Your task to perform on an android device: snooze an email in the gmail app Image 0: 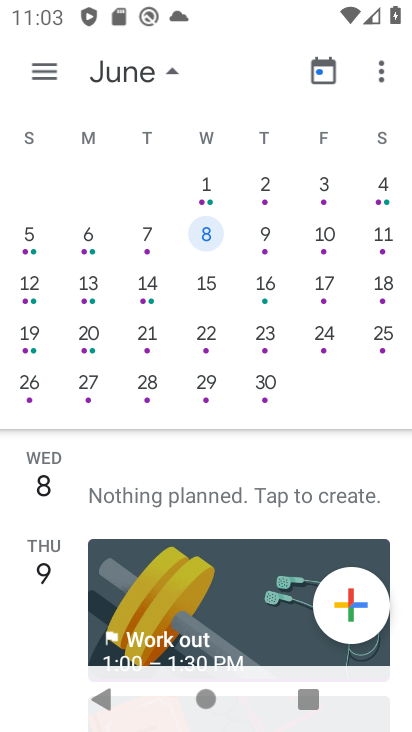
Step 0: press back button
Your task to perform on an android device: snooze an email in the gmail app Image 1: 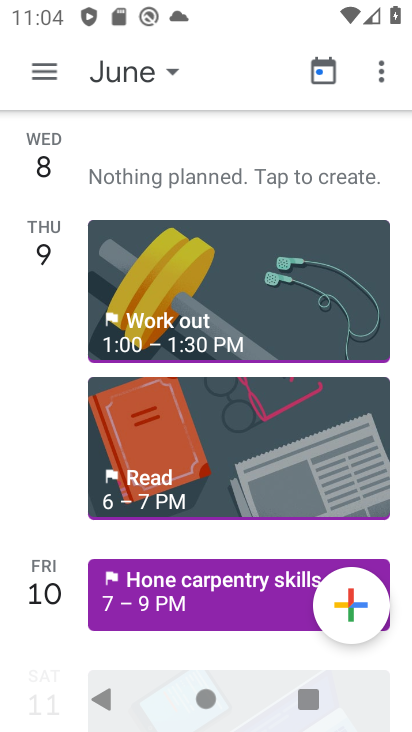
Step 1: press home button
Your task to perform on an android device: snooze an email in the gmail app Image 2: 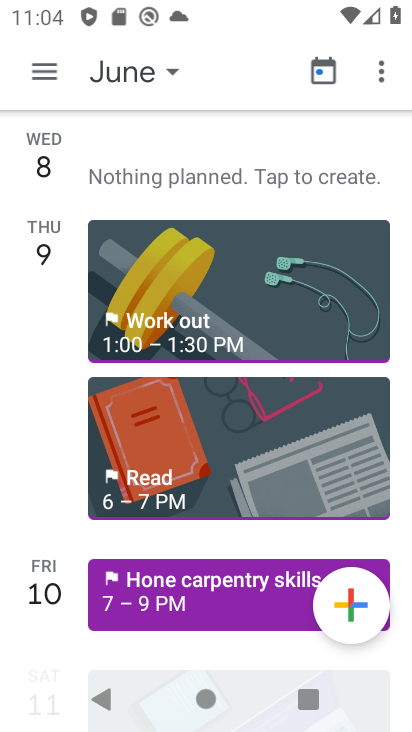
Step 2: press home button
Your task to perform on an android device: snooze an email in the gmail app Image 3: 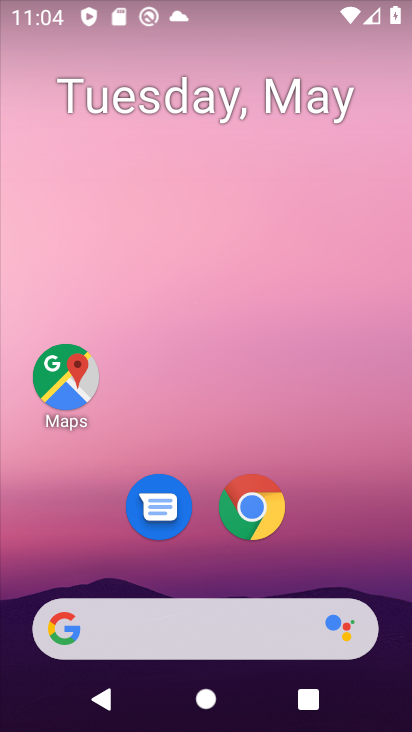
Step 3: click (163, 131)
Your task to perform on an android device: snooze an email in the gmail app Image 4: 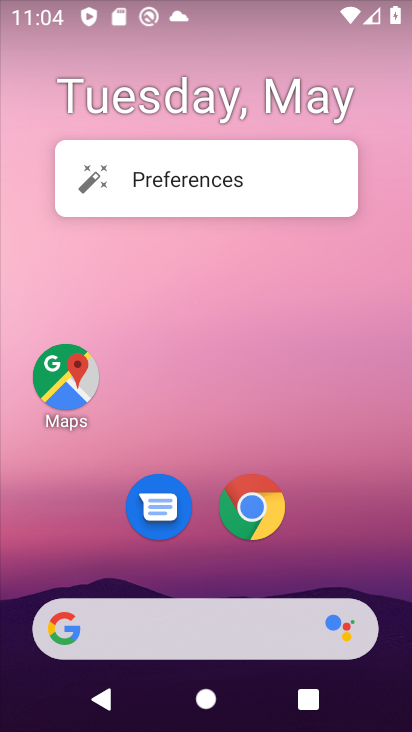
Step 4: drag from (229, 605) to (139, 79)
Your task to perform on an android device: snooze an email in the gmail app Image 5: 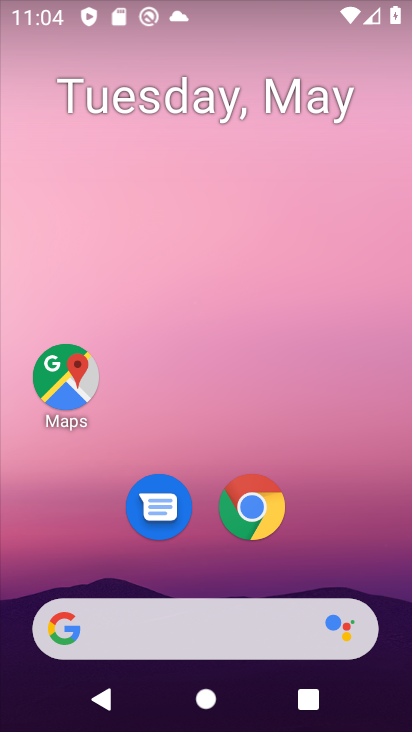
Step 5: drag from (258, 679) to (164, 147)
Your task to perform on an android device: snooze an email in the gmail app Image 6: 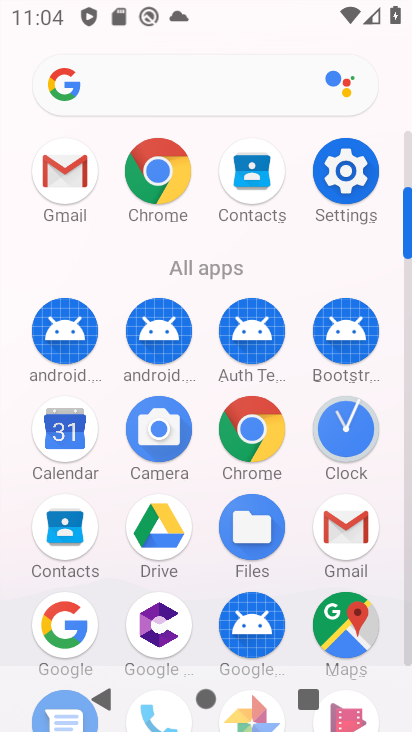
Step 6: click (343, 536)
Your task to perform on an android device: snooze an email in the gmail app Image 7: 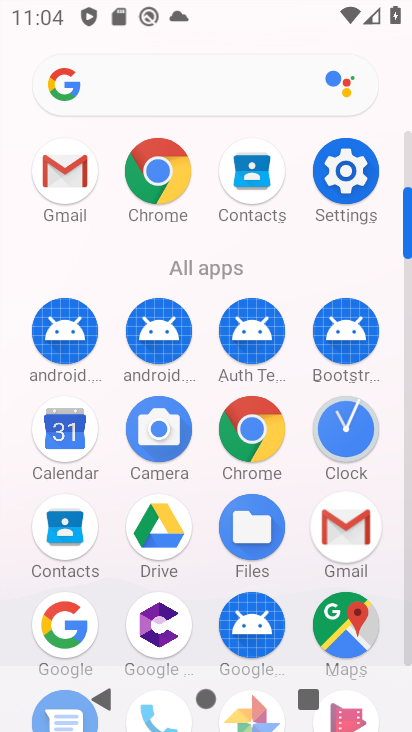
Step 7: click (342, 535)
Your task to perform on an android device: snooze an email in the gmail app Image 8: 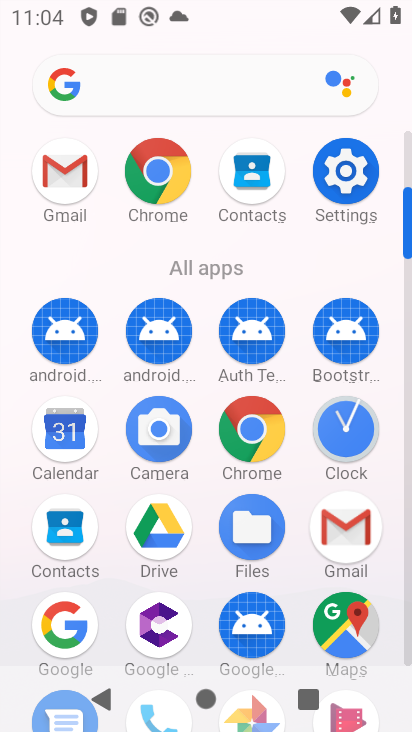
Step 8: click (337, 530)
Your task to perform on an android device: snooze an email in the gmail app Image 9: 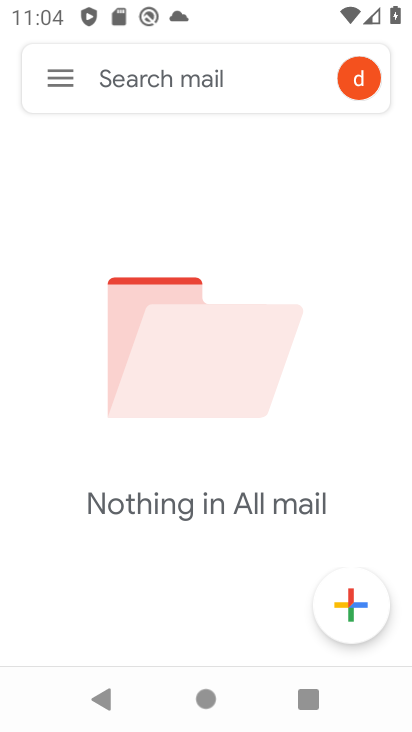
Step 9: click (53, 78)
Your task to perform on an android device: snooze an email in the gmail app Image 10: 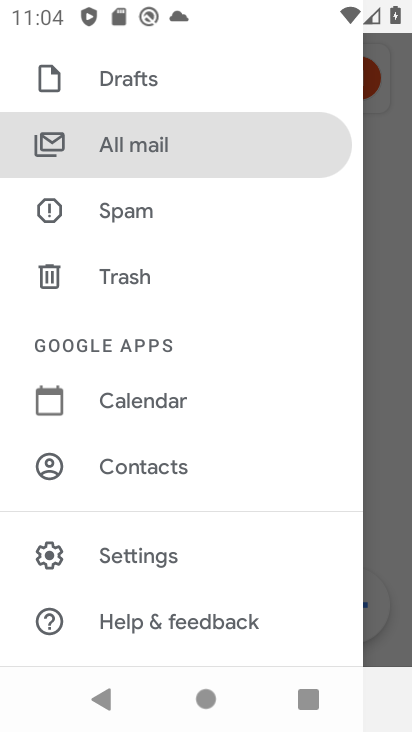
Step 10: click (136, 550)
Your task to perform on an android device: snooze an email in the gmail app Image 11: 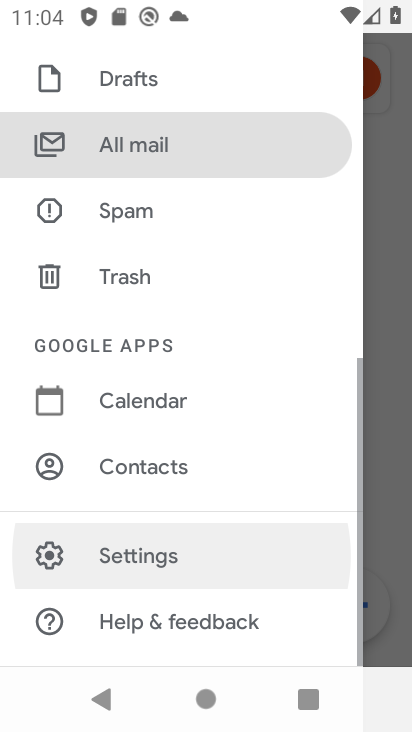
Step 11: click (136, 550)
Your task to perform on an android device: snooze an email in the gmail app Image 12: 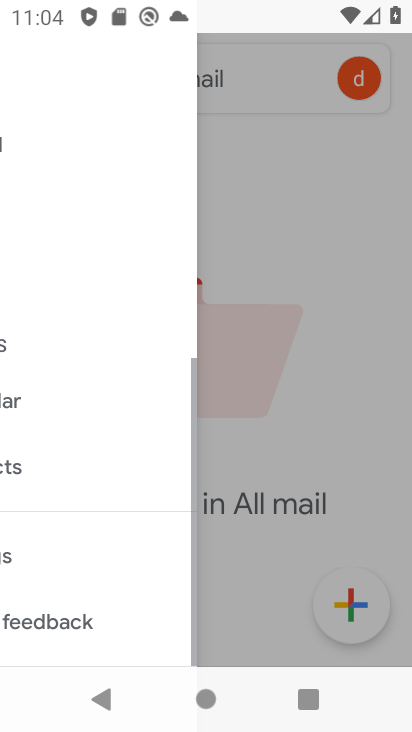
Step 12: click (136, 550)
Your task to perform on an android device: snooze an email in the gmail app Image 13: 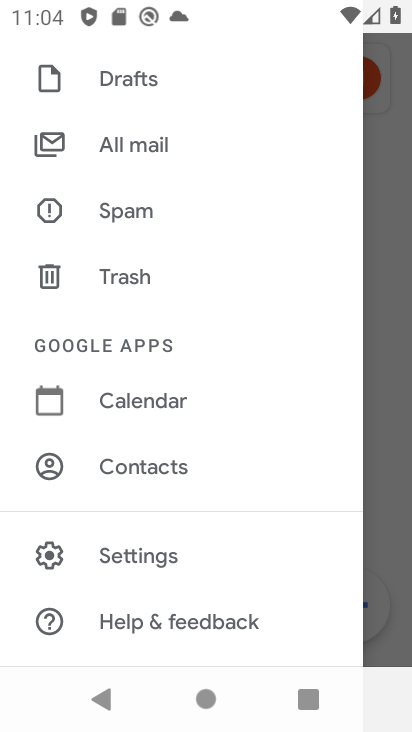
Step 13: click (131, 558)
Your task to perform on an android device: snooze an email in the gmail app Image 14: 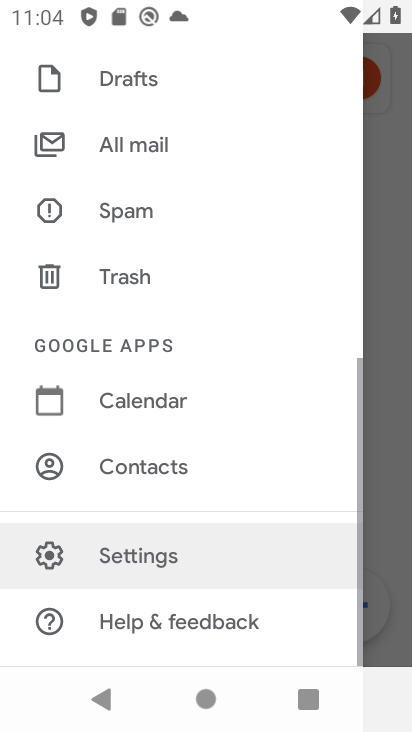
Step 14: click (130, 556)
Your task to perform on an android device: snooze an email in the gmail app Image 15: 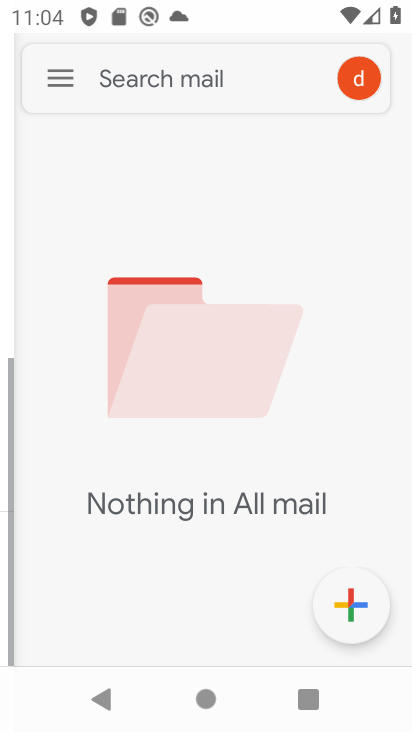
Step 15: click (130, 554)
Your task to perform on an android device: snooze an email in the gmail app Image 16: 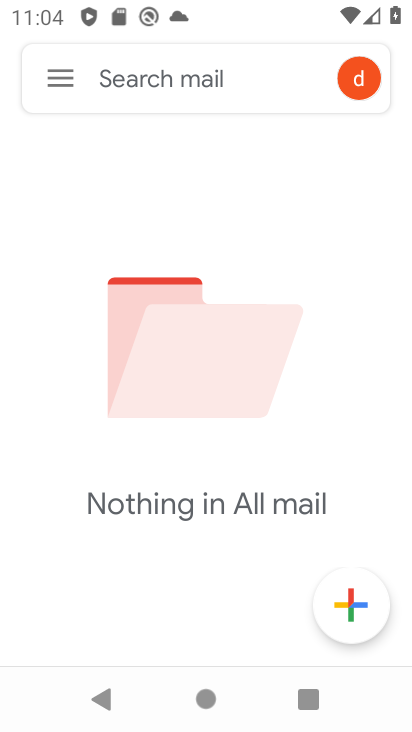
Step 16: click (130, 552)
Your task to perform on an android device: snooze an email in the gmail app Image 17: 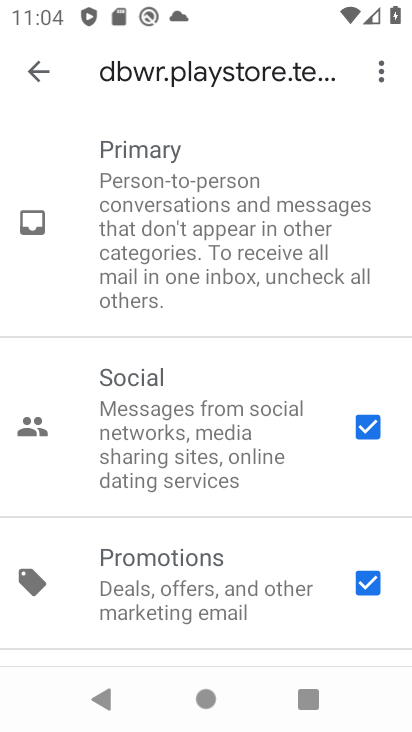
Step 17: click (38, 68)
Your task to perform on an android device: snooze an email in the gmail app Image 18: 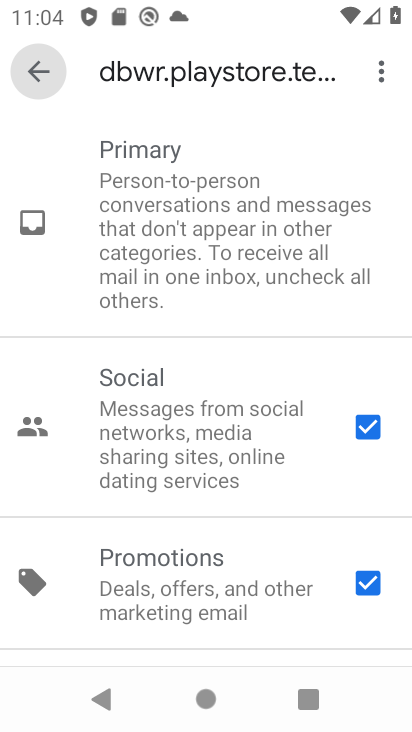
Step 18: click (38, 68)
Your task to perform on an android device: snooze an email in the gmail app Image 19: 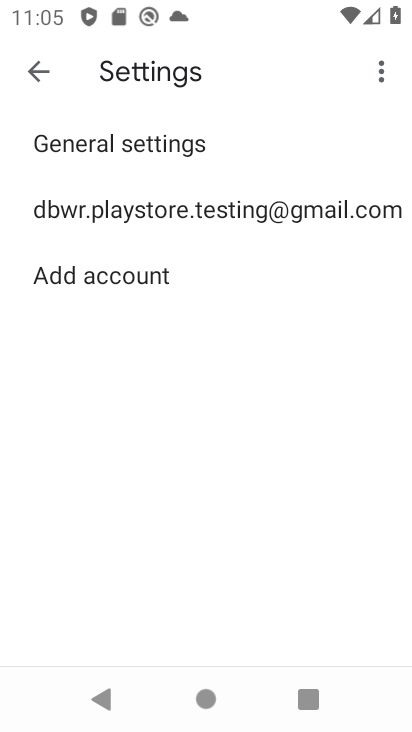
Step 19: click (148, 213)
Your task to perform on an android device: snooze an email in the gmail app Image 20: 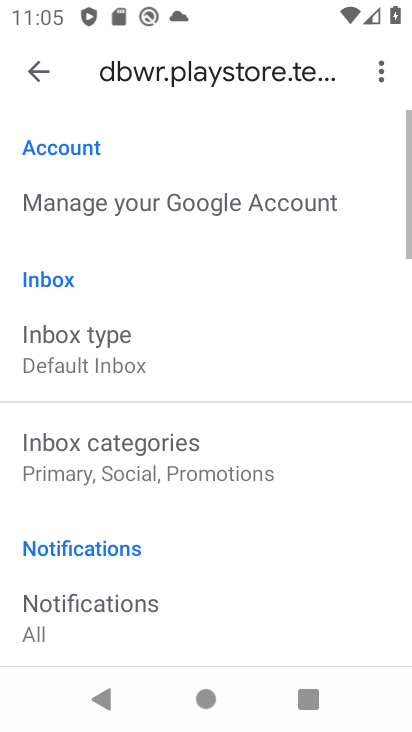
Step 20: click (44, 73)
Your task to perform on an android device: snooze an email in the gmail app Image 21: 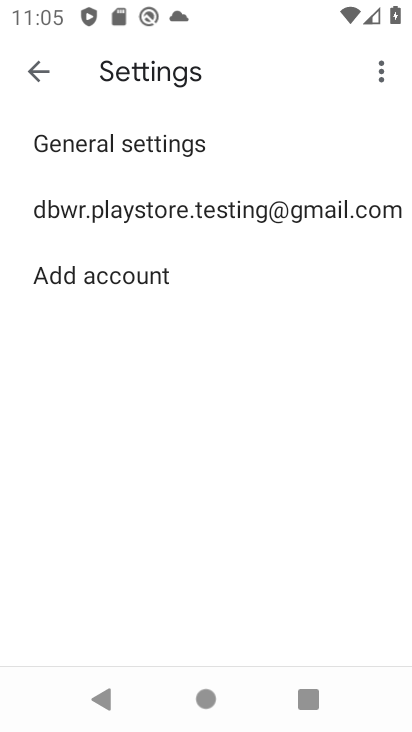
Step 21: click (43, 72)
Your task to perform on an android device: snooze an email in the gmail app Image 22: 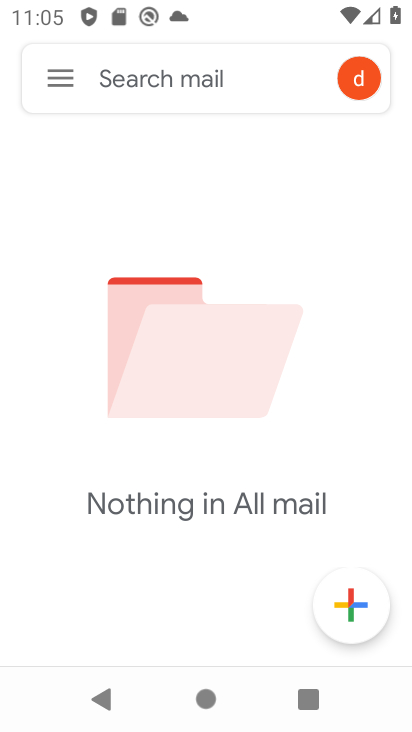
Step 22: click (67, 75)
Your task to perform on an android device: snooze an email in the gmail app Image 23: 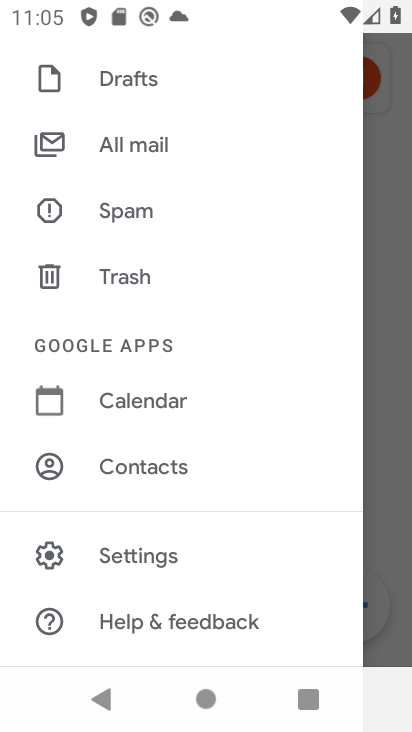
Step 23: drag from (130, 167) to (184, 457)
Your task to perform on an android device: snooze an email in the gmail app Image 24: 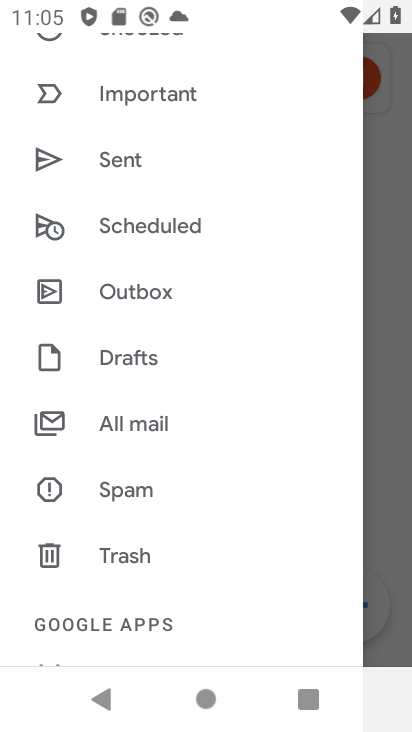
Step 24: drag from (156, 111) to (162, 428)
Your task to perform on an android device: snooze an email in the gmail app Image 25: 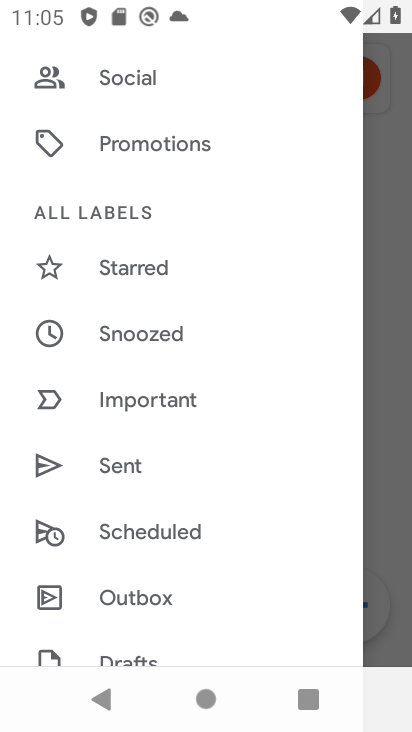
Step 25: click (155, 329)
Your task to perform on an android device: snooze an email in the gmail app Image 26: 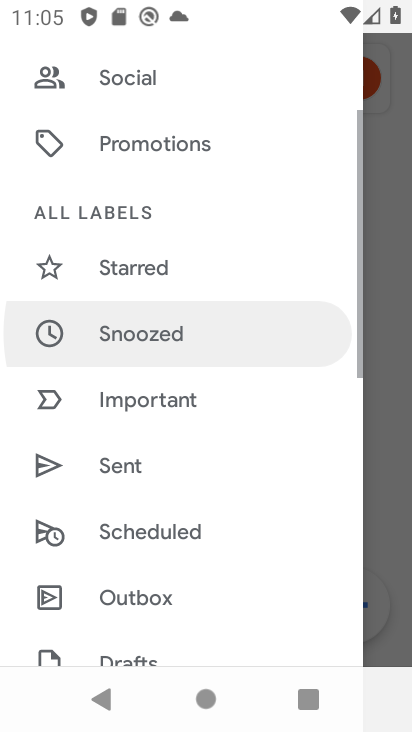
Step 26: click (152, 332)
Your task to perform on an android device: snooze an email in the gmail app Image 27: 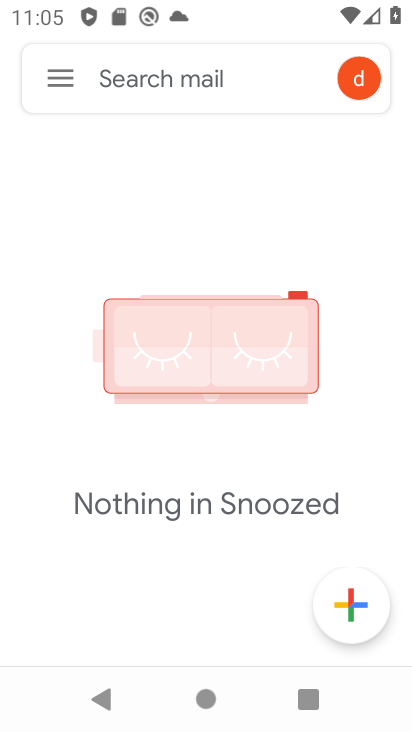
Step 27: task complete